Your task to perform on an android device: Add "razer blade" to the cart on amazon Image 0: 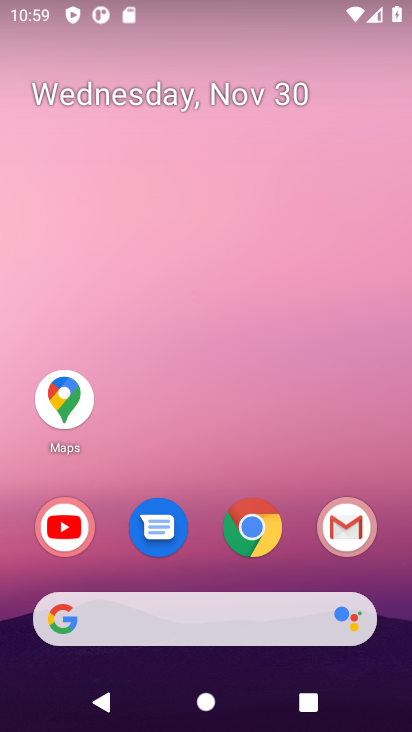
Step 0: click (255, 530)
Your task to perform on an android device: Add "razer blade" to the cart on amazon Image 1: 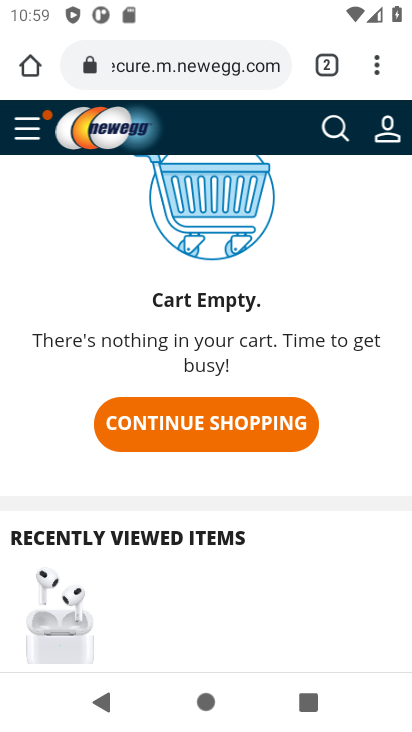
Step 1: click (138, 62)
Your task to perform on an android device: Add "razer blade" to the cart on amazon Image 2: 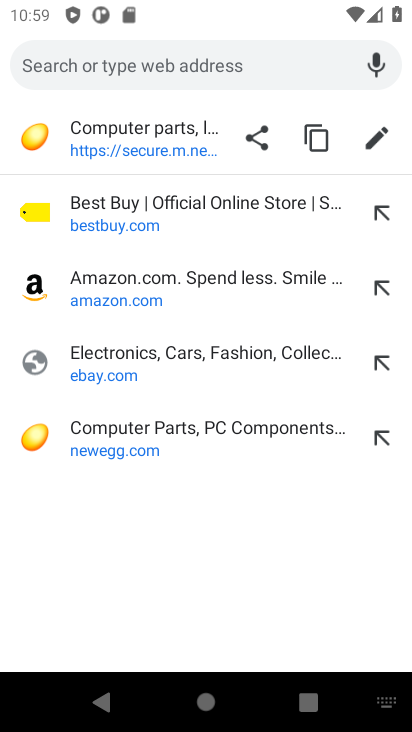
Step 2: click (86, 285)
Your task to perform on an android device: Add "razer blade" to the cart on amazon Image 3: 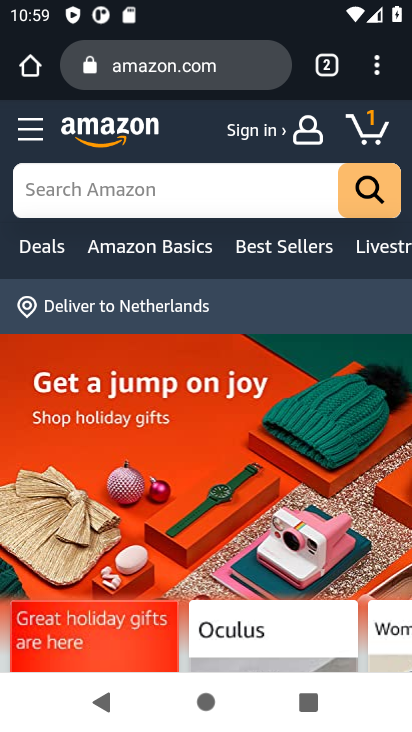
Step 3: click (78, 193)
Your task to perform on an android device: Add "razer blade" to the cart on amazon Image 4: 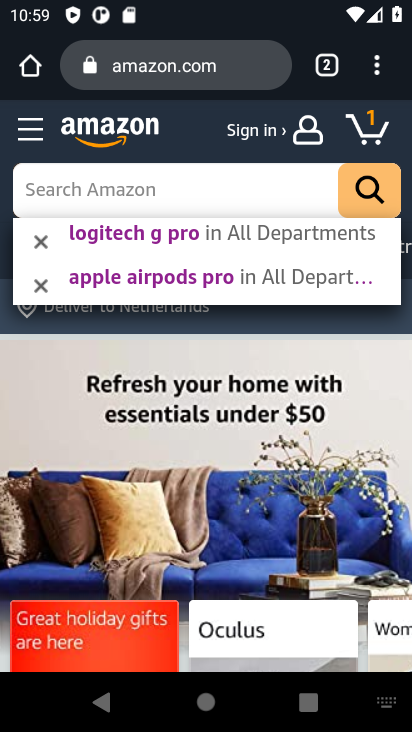
Step 4: type "razer blade"
Your task to perform on an android device: Add "razer blade" to the cart on amazon Image 5: 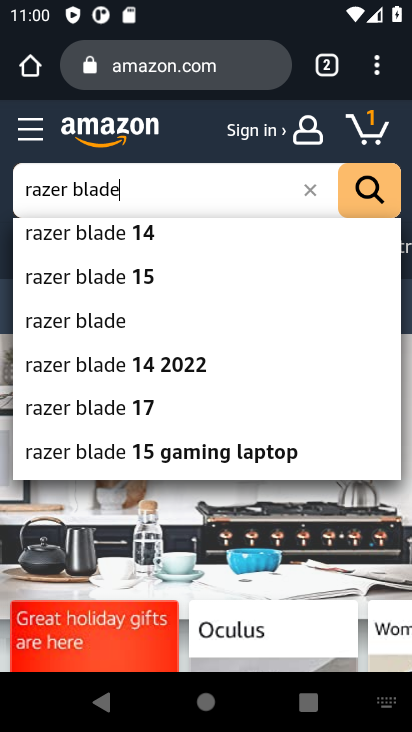
Step 5: click (91, 323)
Your task to perform on an android device: Add "razer blade" to the cart on amazon Image 6: 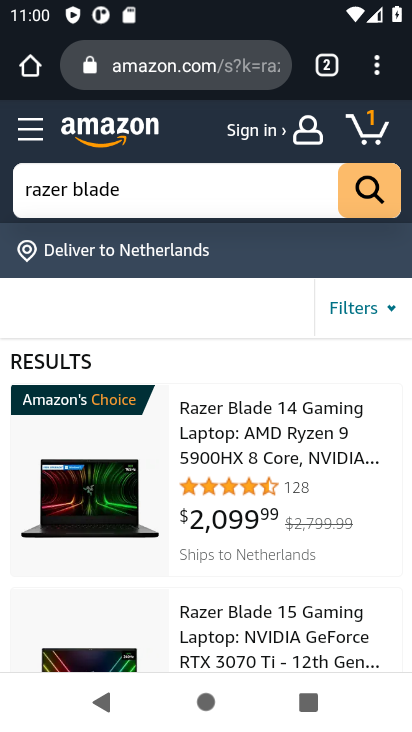
Step 6: click (230, 471)
Your task to perform on an android device: Add "razer blade" to the cart on amazon Image 7: 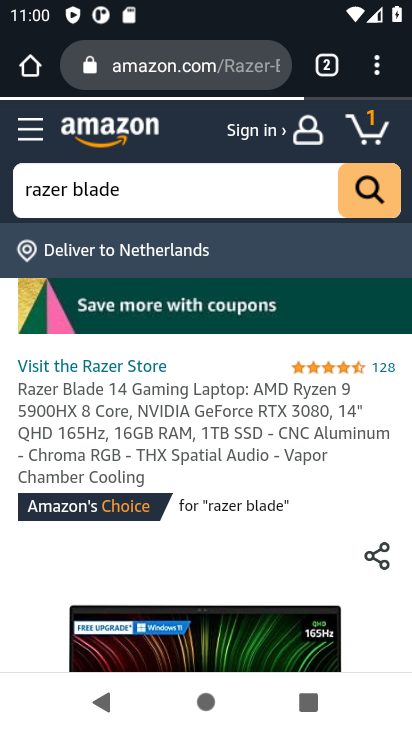
Step 7: drag from (213, 522) to (209, 340)
Your task to perform on an android device: Add "razer blade" to the cart on amazon Image 8: 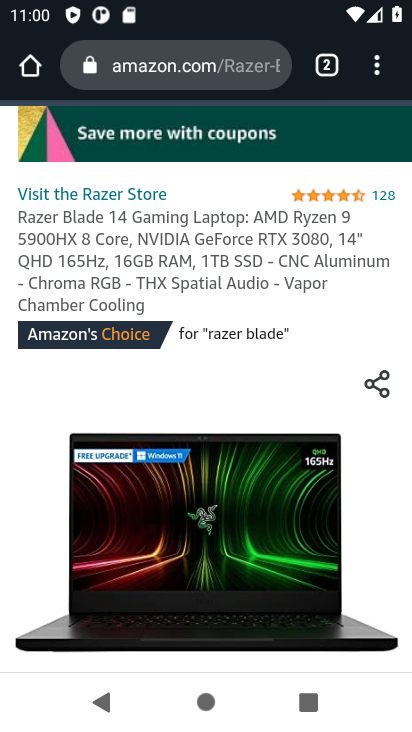
Step 8: drag from (166, 595) to (169, 314)
Your task to perform on an android device: Add "razer blade" to the cart on amazon Image 9: 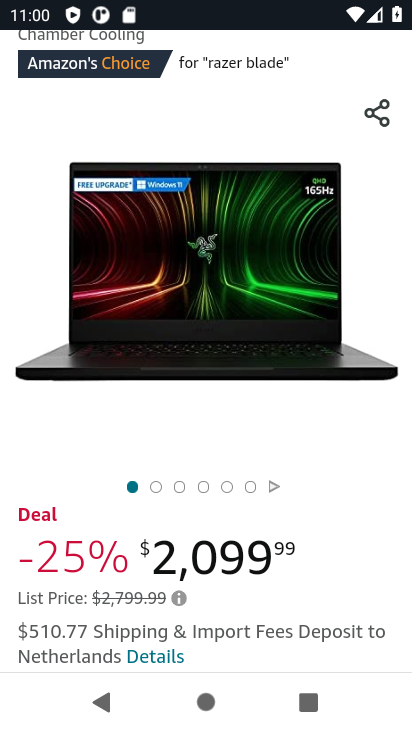
Step 9: drag from (139, 556) to (144, 302)
Your task to perform on an android device: Add "razer blade" to the cart on amazon Image 10: 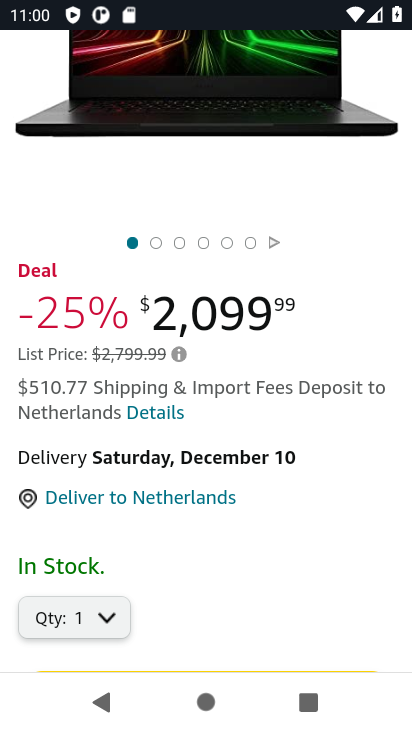
Step 10: drag from (139, 543) to (143, 275)
Your task to perform on an android device: Add "razer blade" to the cart on amazon Image 11: 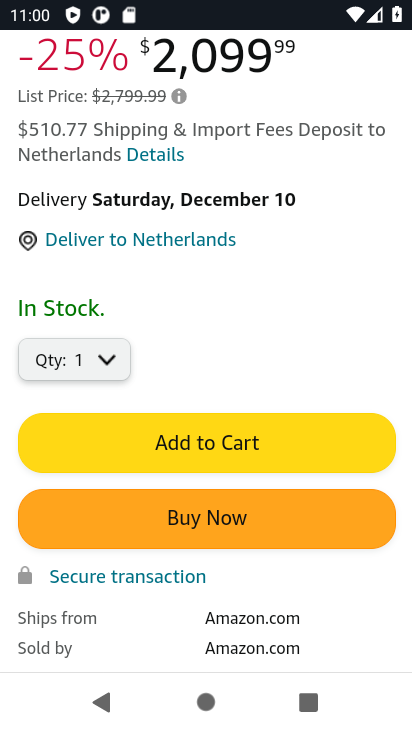
Step 11: click (165, 440)
Your task to perform on an android device: Add "razer blade" to the cart on amazon Image 12: 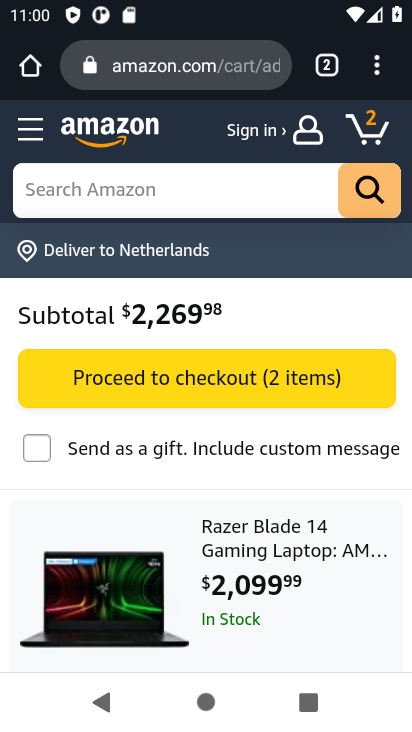
Step 12: task complete